Your task to perform on an android device: delete browsing data in the chrome app Image 0: 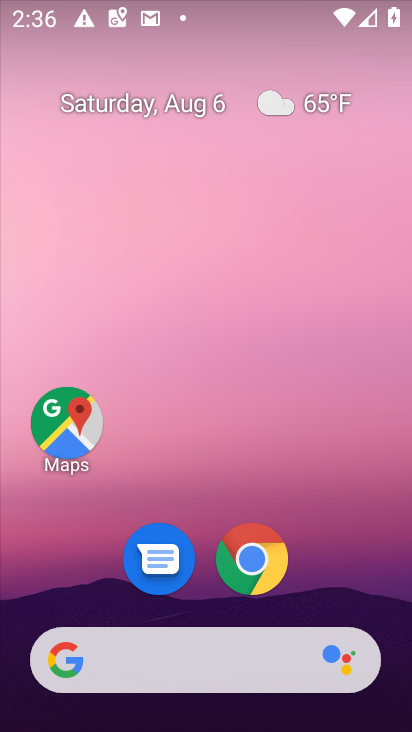
Step 0: click (265, 553)
Your task to perform on an android device: delete browsing data in the chrome app Image 1: 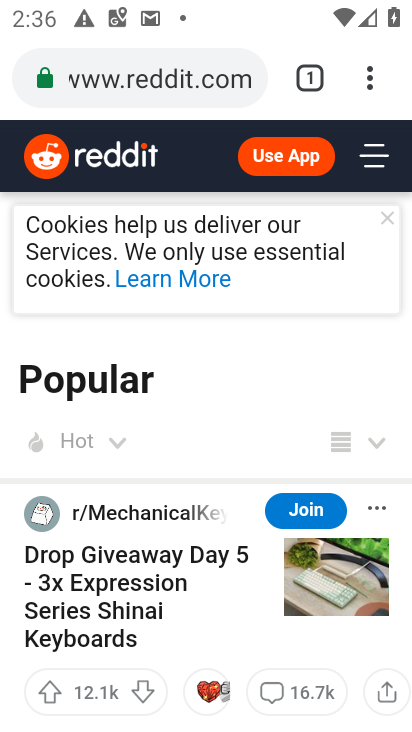
Step 1: drag from (370, 79) to (399, 122)
Your task to perform on an android device: delete browsing data in the chrome app Image 2: 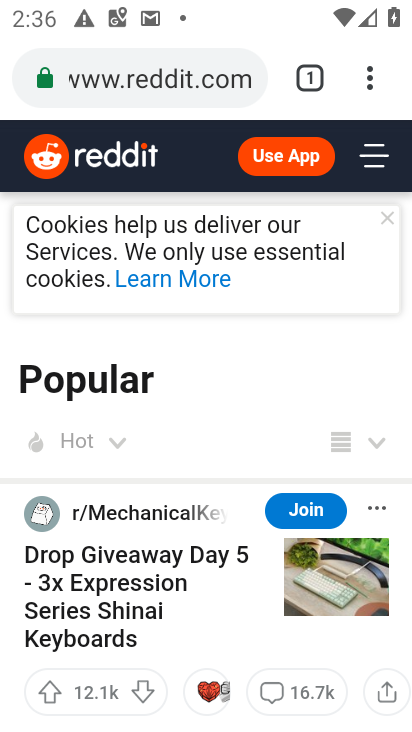
Step 2: drag from (200, 610) to (207, 273)
Your task to perform on an android device: delete browsing data in the chrome app Image 3: 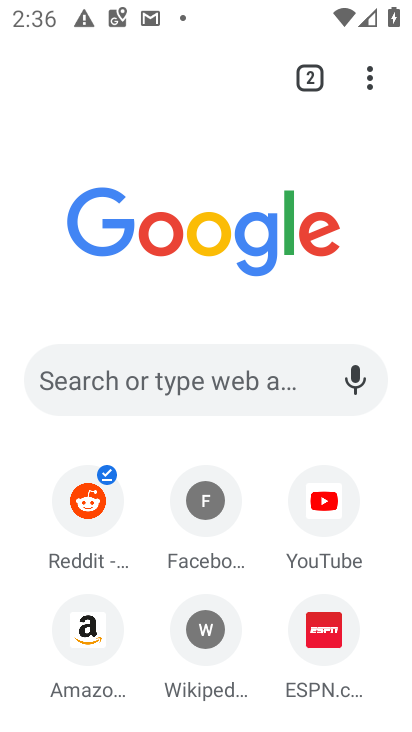
Step 3: click (367, 81)
Your task to perform on an android device: delete browsing data in the chrome app Image 4: 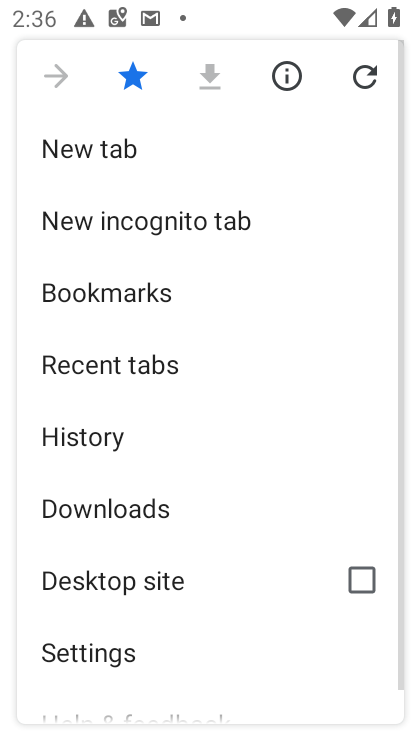
Step 4: click (83, 430)
Your task to perform on an android device: delete browsing data in the chrome app Image 5: 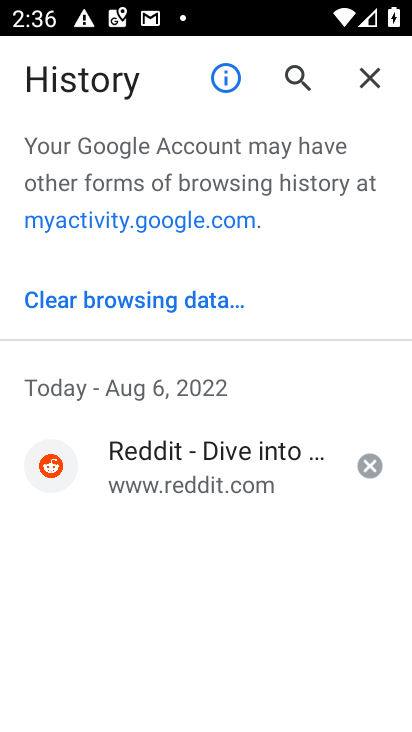
Step 5: click (159, 303)
Your task to perform on an android device: delete browsing data in the chrome app Image 6: 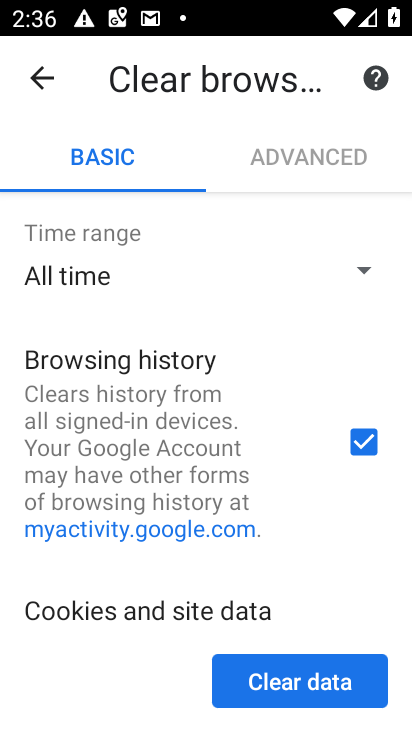
Step 6: drag from (254, 493) to (254, 198)
Your task to perform on an android device: delete browsing data in the chrome app Image 7: 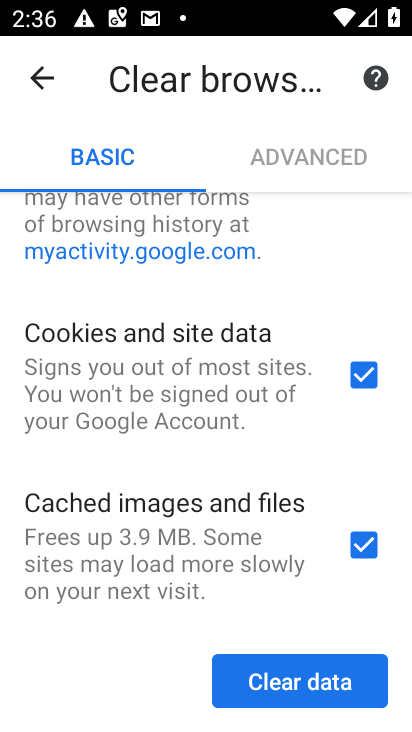
Step 7: click (258, 684)
Your task to perform on an android device: delete browsing data in the chrome app Image 8: 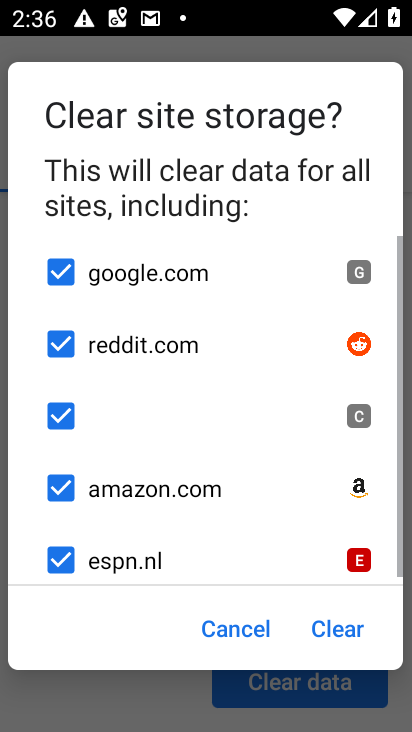
Step 8: click (329, 620)
Your task to perform on an android device: delete browsing data in the chrome app Image 9: 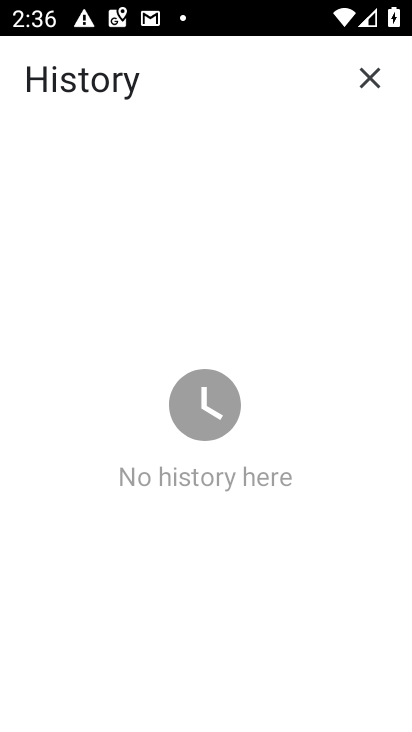
Step 9: task complete